Your task to perform on an android device: toggle sleep mode Image 0: 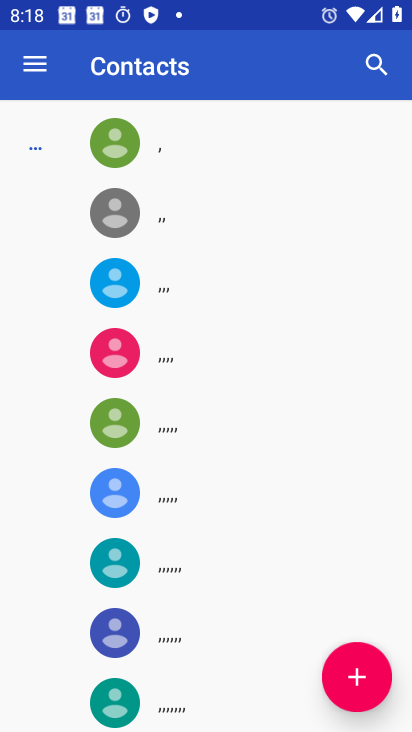
Step 0: press home button
Your task to perform on an android device: toggle sleep mode Image 1: 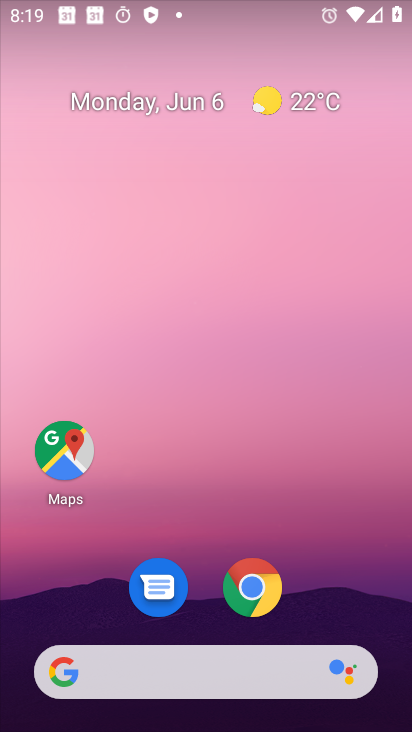
Step 1: drag from (217, 646) to (216, 314)
Your task to perform on an android device: toggle sleep mode Image 2: 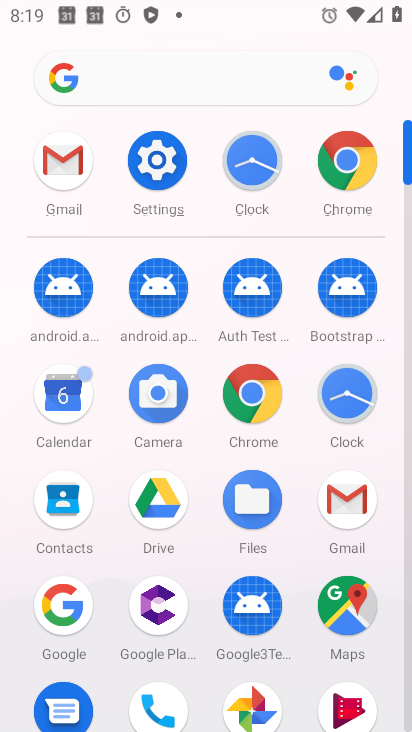
Step 2: click (147, 168)
Your task to perform on an android device: toggle sleep mode Image 3: 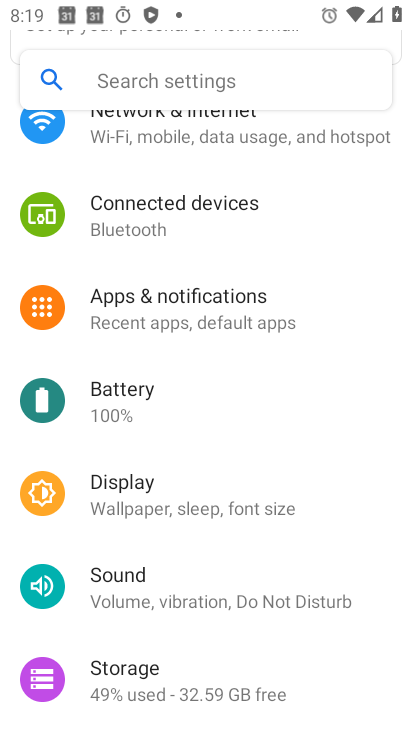
Step 3: click (200, 518)
Your task to perform on an android device: toggle sleep mode Image 4: 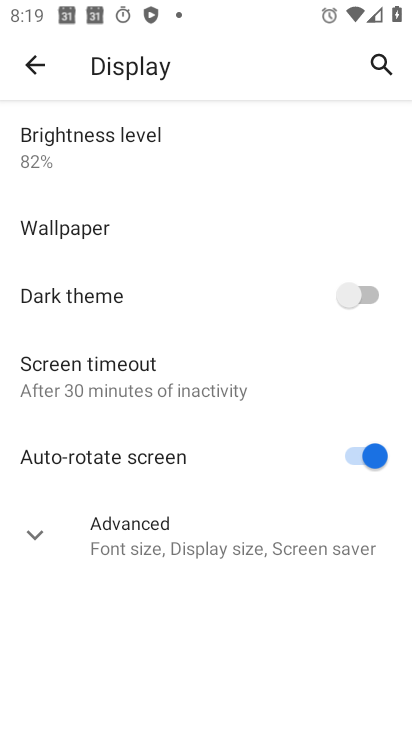
Step 4: click (207, 540)
Your task to perform on an android device: toggle sleep mode Image 5: 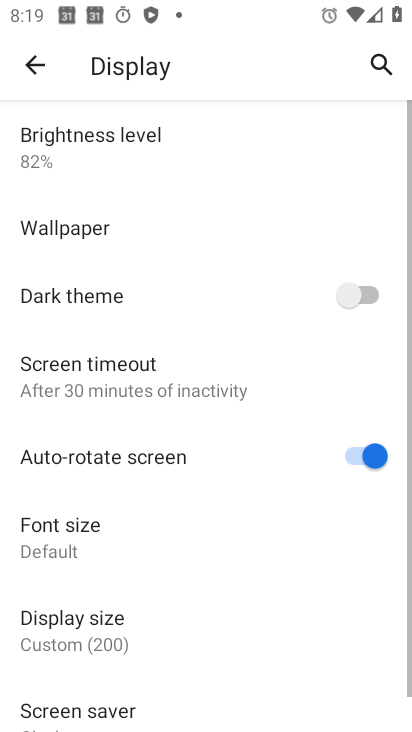
Step 5: click (155, 388)
Your task to perform on an android device: toggle sleep mode Image 6: 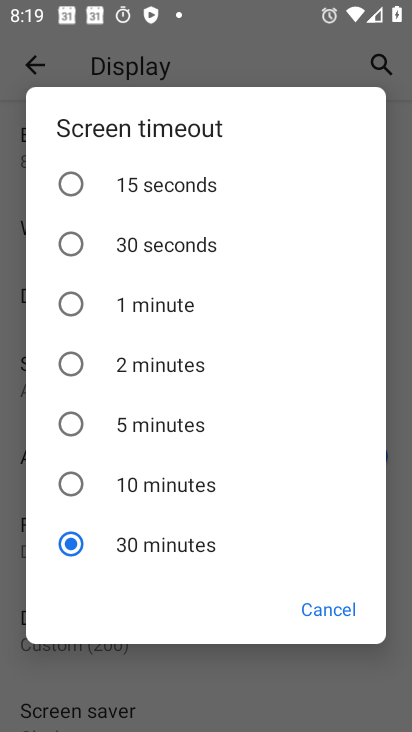
Step 6: click (196, 196)
Your task to perform on an android device: toggle sleep mode Image 7: 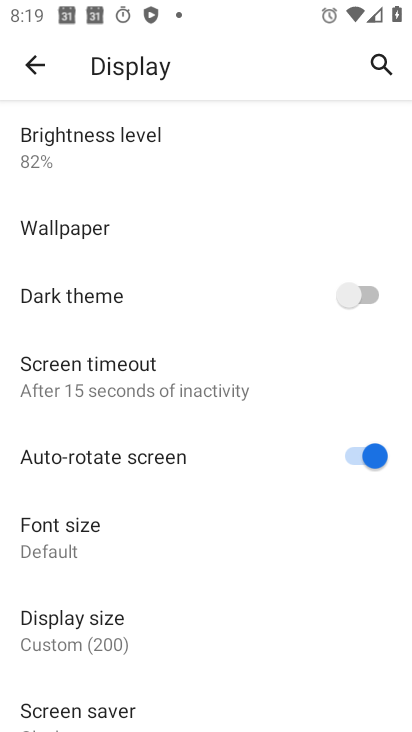
Step 7: task complete